Your task to perform on an android device: open a bookmark in the chrome app Image 0: 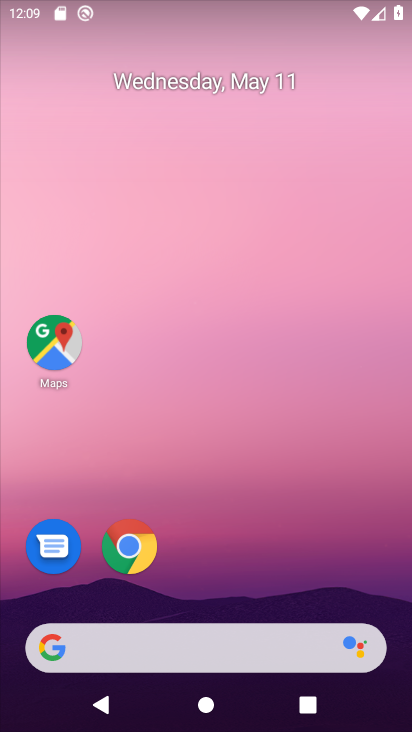
Step 0: drag from (209, 542) to (222, 236)
Your task to perform on an android device: open a bookmark in the chrome app Image 1: 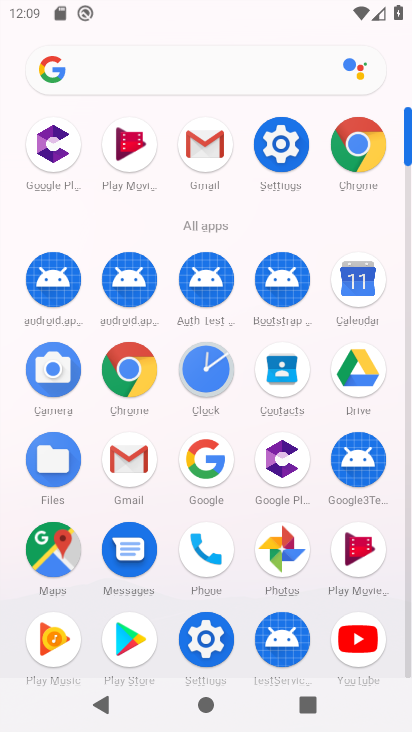
Step 1: click (348, 145)
Your task to perform on an android device: open a bookmark in the chrome app Image 2: 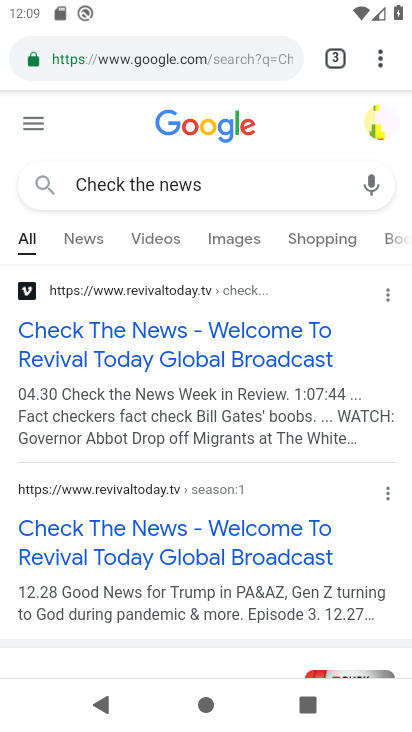
Step 2: click (370, 62)
Your task to perform on an android device: open a bookmark in the chrome app Image 3: 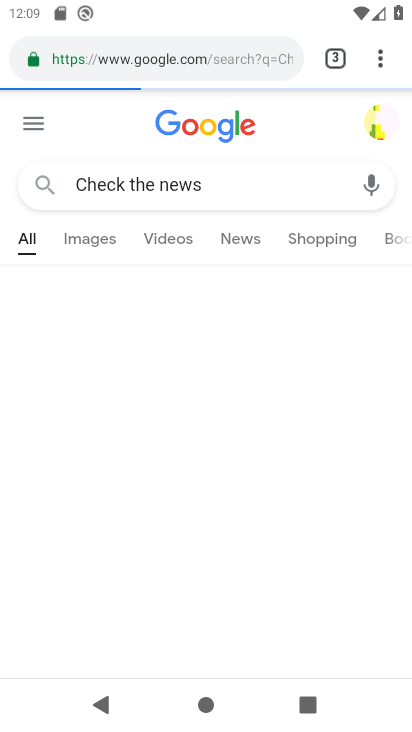
Step 3: click (368, 64)
Your task to perform on an android device: open a bookmark in the chrome app Image 4: 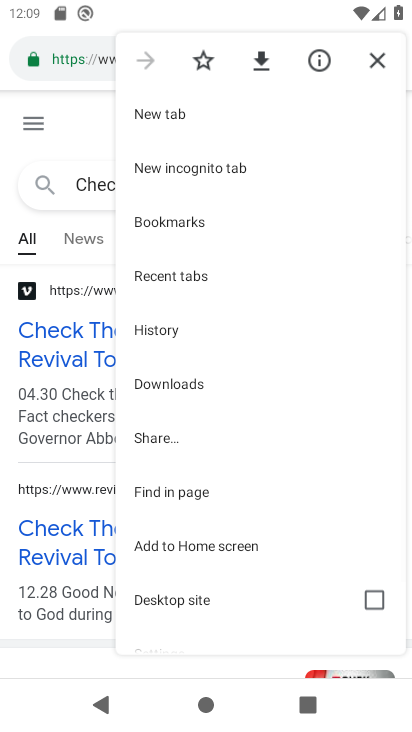
Step 4: click (170, 213)
Your task to perform on an android device: open a bookmark in the chrome app Image 5: 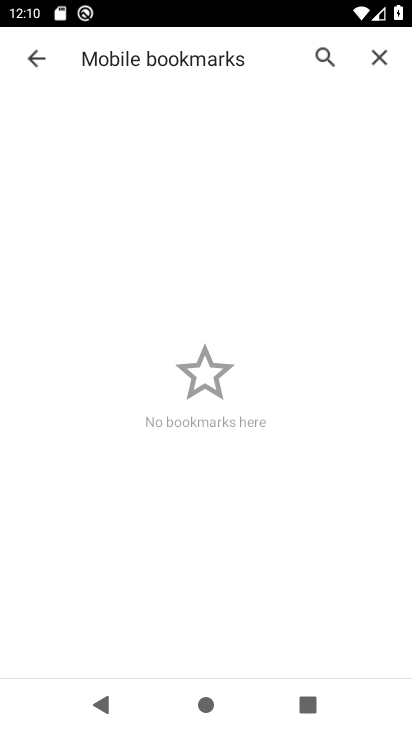
Step 5: task complete